Your task to perform on an android device: See recent photos Image 0: 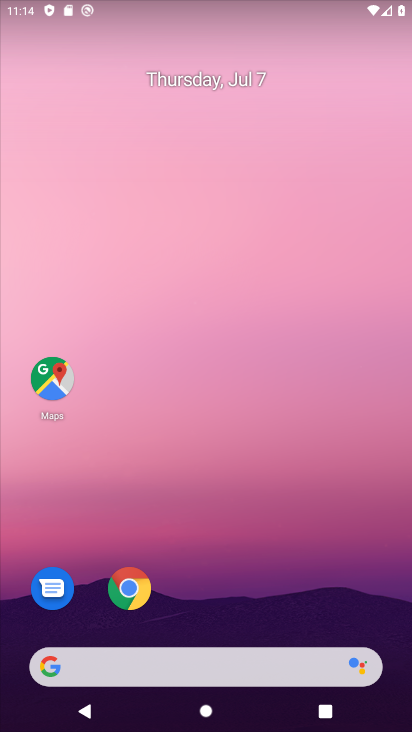
Step 0: drag from (218, 596) to (226, 103)
Your task to perform on an android device: See recent photos Image 1: 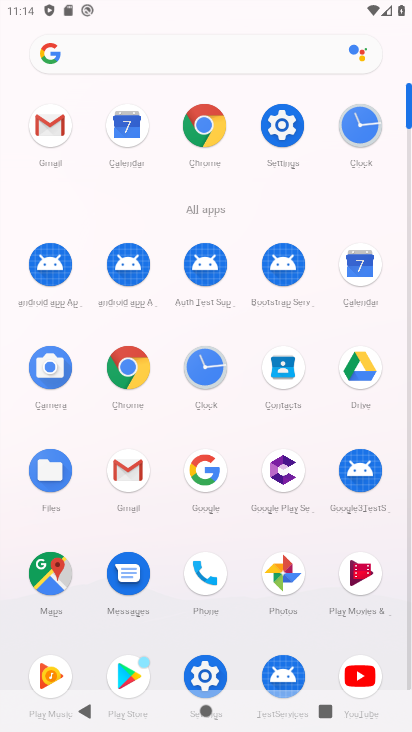
Step 1: click (279, 571)
Your task to perform on an android device: See recent photos Image 2: 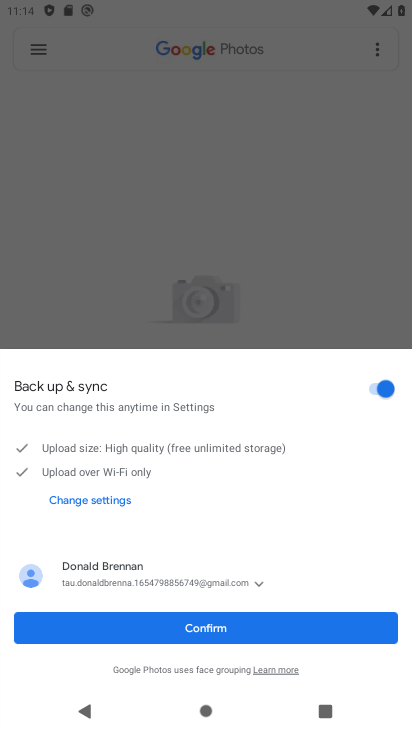
Step 2: click (263, 629)
Your task to perform on an android device: See recent photos Image 3: 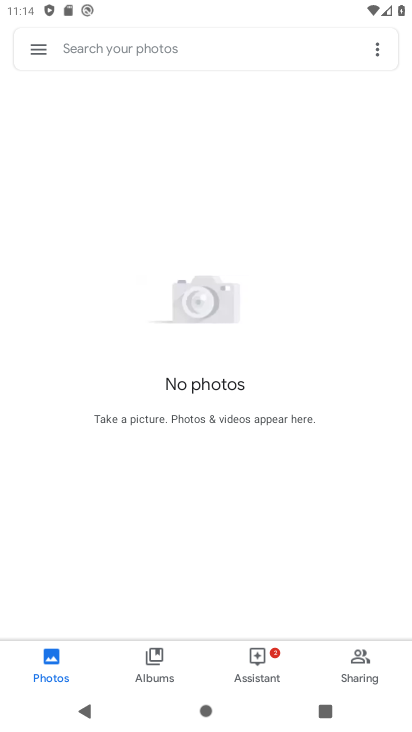
Step 3: task complete